Your task to perform on an android device: What's on my calendar today? Image 0: 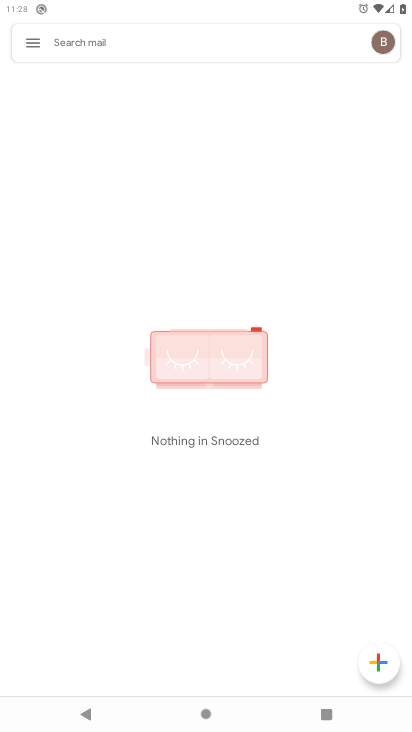
Step 0: press home button
Your task to perform on an android device: What's on my calendar today? Image 1: 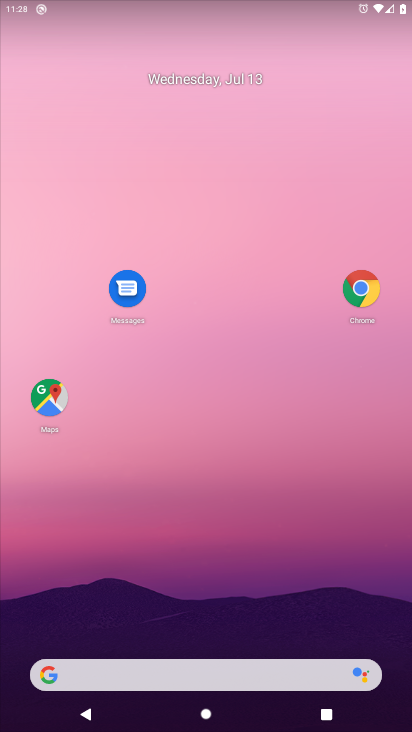
Step 1: drag from (81, 444) to (295, 13)
Your task to perform on an android device: What's on my calendar today? Image 2: 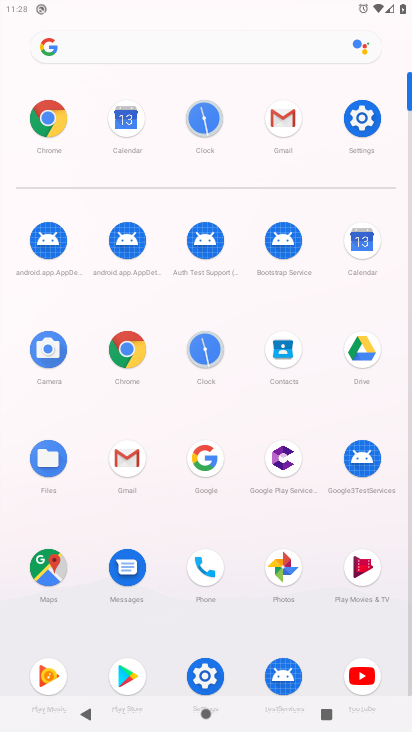
Step 2: click (357, 251)
Your task to perform on an android device: What's on my calendar today? Image 3: 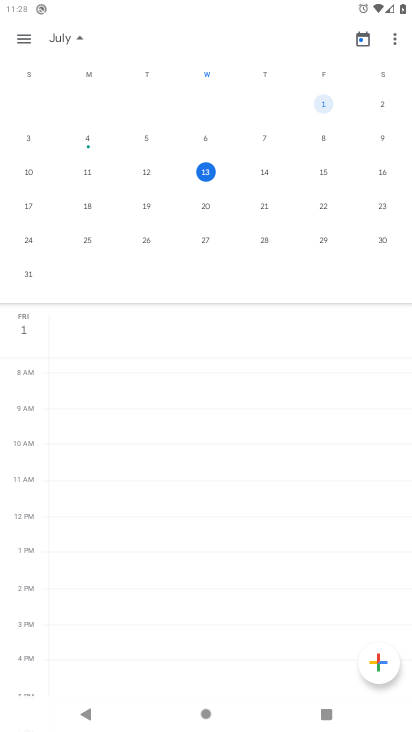
Step 3: task complete